Your task to perform on an android device: turn pop-ups off in chrome Image 0: 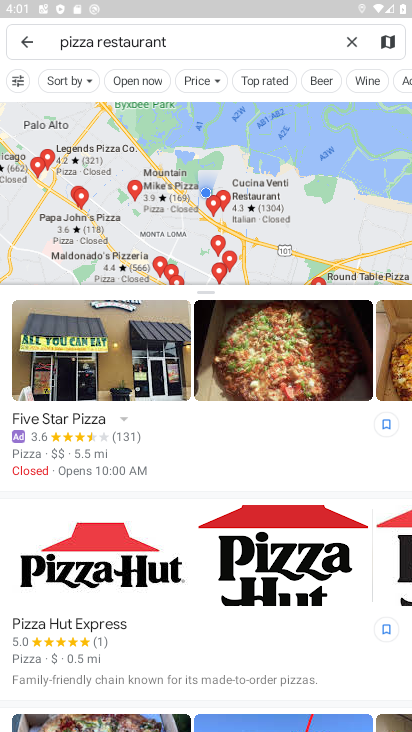
Step 0: press home button
Your task to perform on an android device: turn pop-ups off in chrome Image 1: 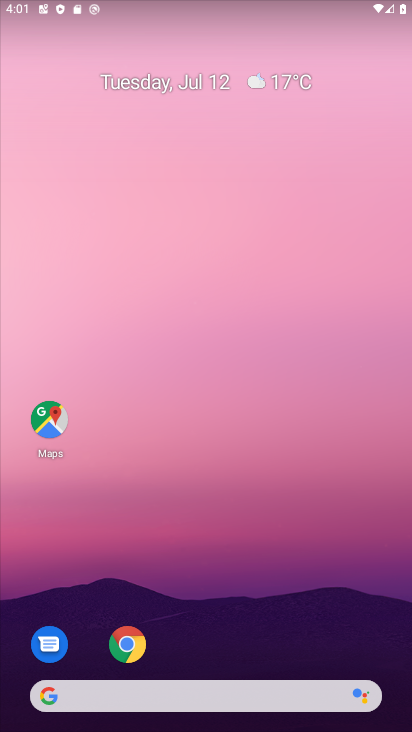
Step 1: click (138, 646)
Your task to perform on an android device: turn pop-ups off in chrome Image 2: 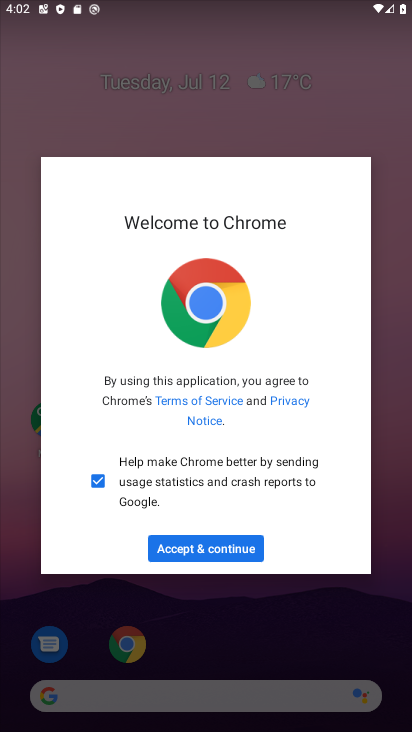
Step 2: click (232, 548)
Your task to perform on an android device: turn pop-ups off in chrome Image 3: 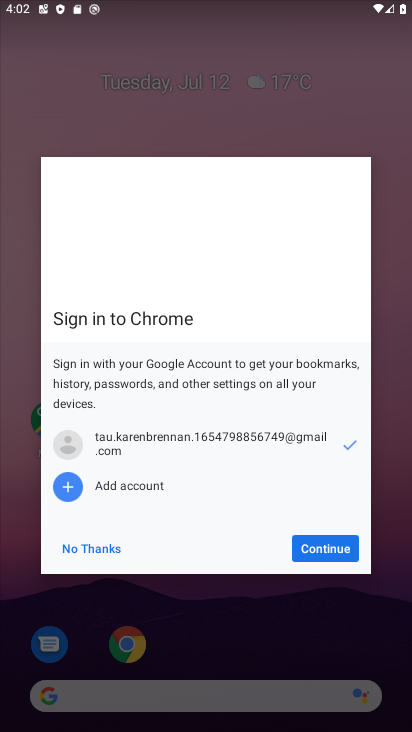
Step 3: click (350, 553)
Your task to perform on an android device: turn pop-ups off in chrome Image 4: 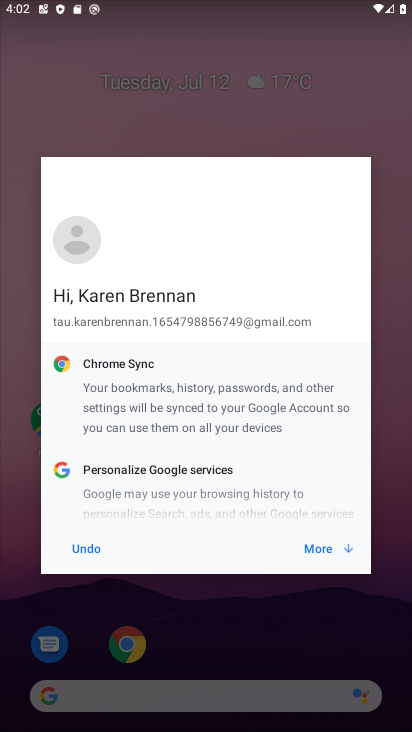
Step 4: click (348, 553)
Your task to perform on an android device: turn pop-ups off in chrome Image 5: 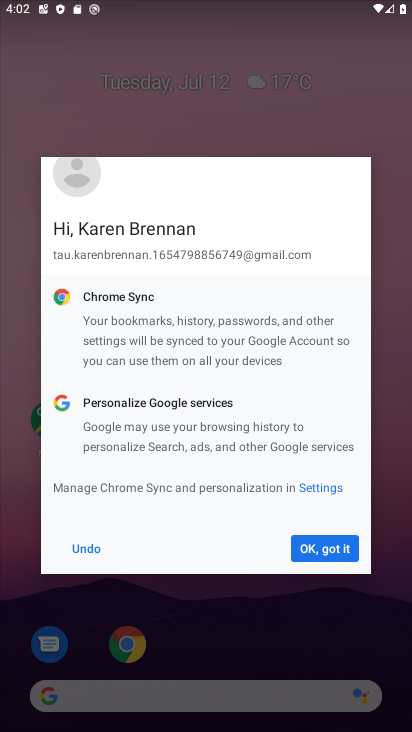
Step 5: click (347, 553)
Your task to perform on an android device: turn pop-ups off in chrome Image 6: 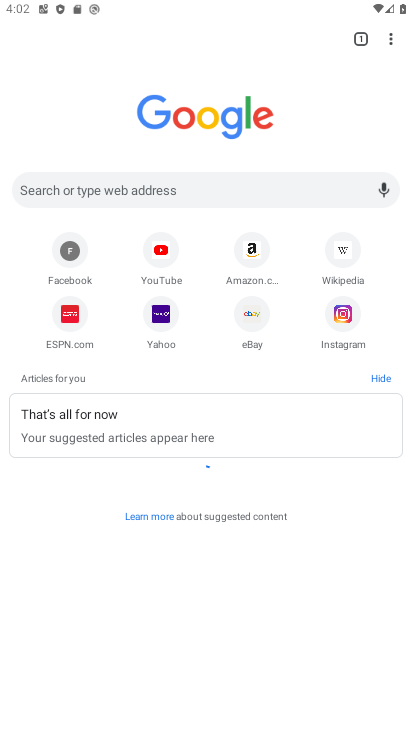
Step 6: click (391, 45)
Your task to perform on an android device: turn pop-ups off in chrome Image 7: 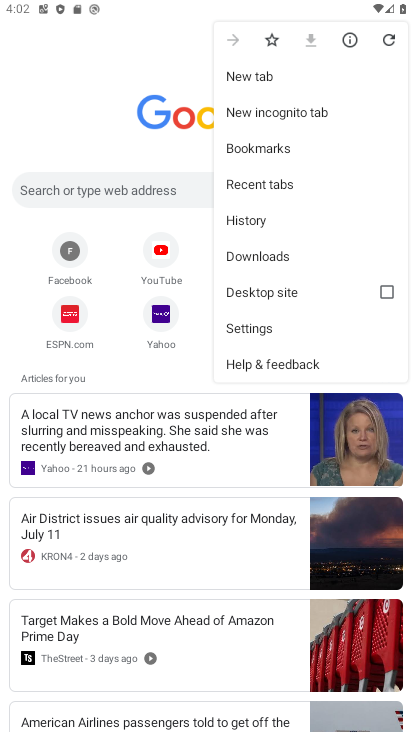
Step 7: click (287, 325)
Your task to perform on an android device: turn pop-ups off in chrome Image 8: 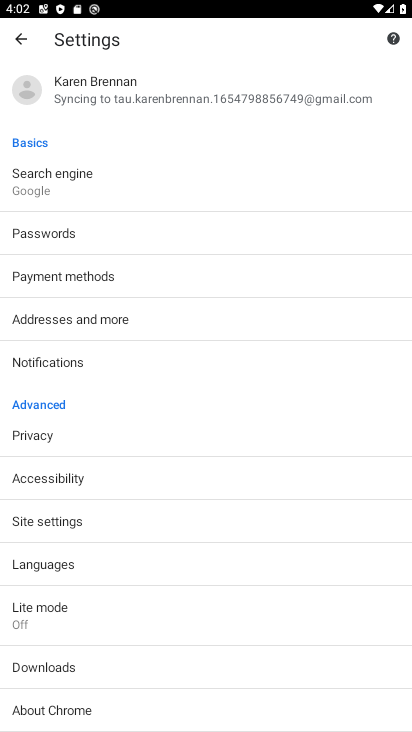
Step 8: click (191, 526)
Your task to perform on an android device: turn pop-ups off in chrome Image 9: 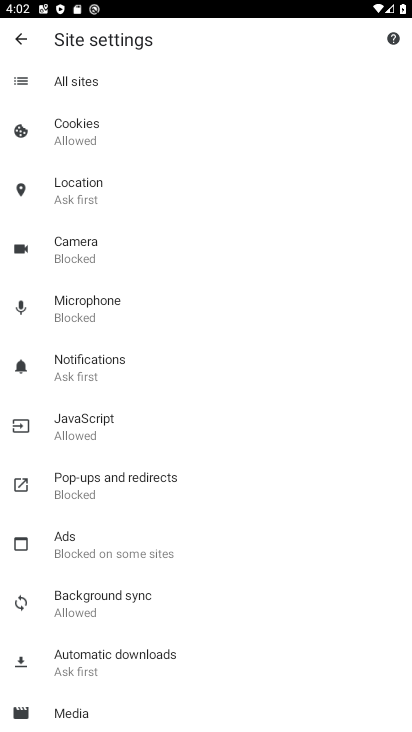
Step 9: click (173, 484)
Your task to perform on an android device: turn pop-ups off in chrome Image 10: 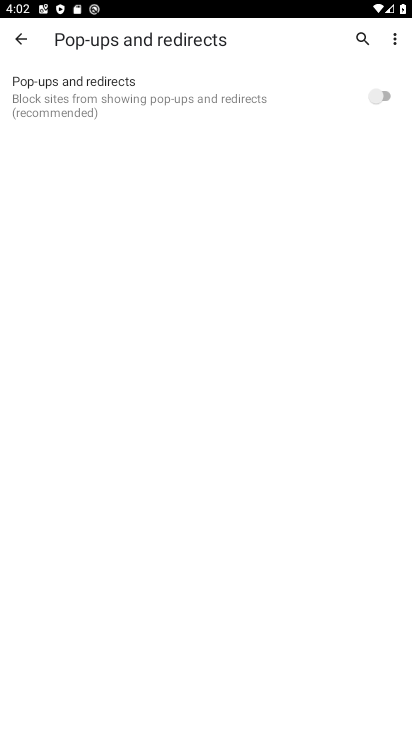
Step 10: task complete